Your task to perform on an android device: Go to Yahoo.com Image 0: 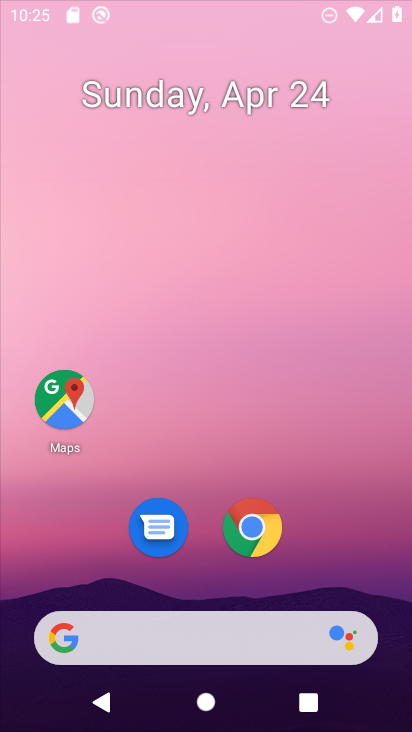
Step 0: click (294, 155)
Your task to perform on an android device: Go to Yahoo.com Image 1: 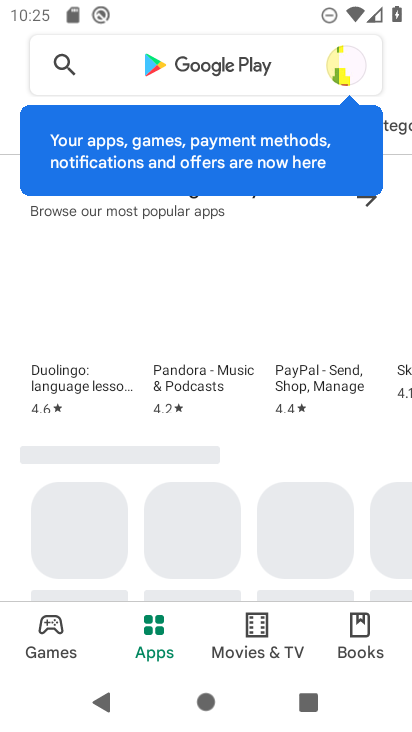
Step 1: press home button
Your task to perform on an android device: Go to Yahoo.com Image 2: 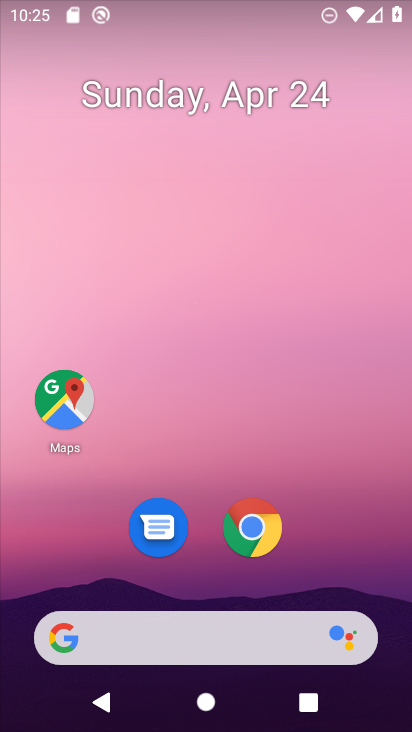
Step 2: drag from (382, 543) to (290, 111)
Your task to perform on an android device: Go to Yahoo.com Image 3: 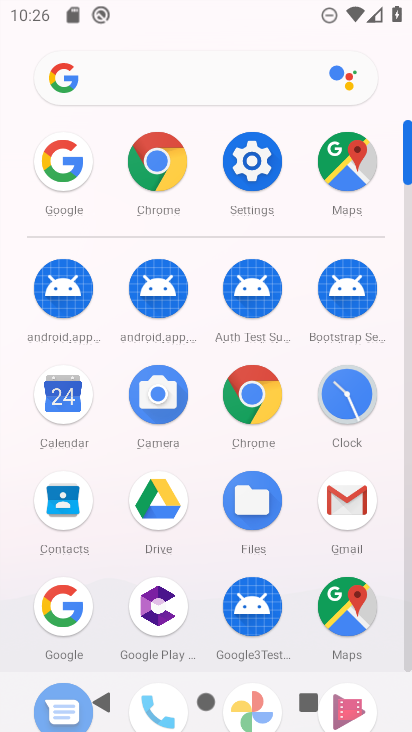
Step 3: click (158, 144)
Your task to perform on an android device: Go to Yahoo.com Image 4: 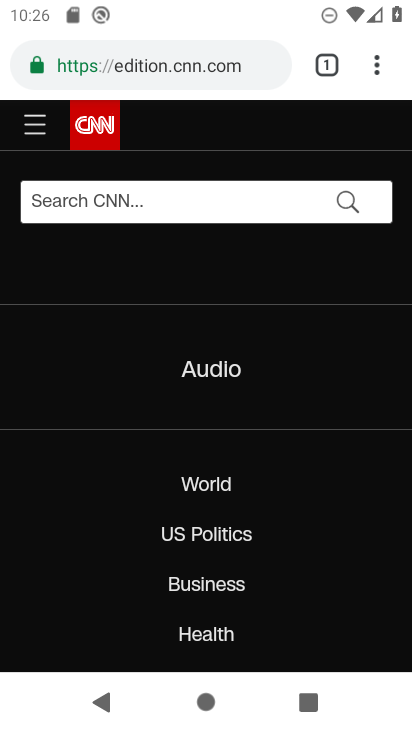
Step 4: press back button
Your task to perform on an android device: Go to Yahoo.com Image 5: 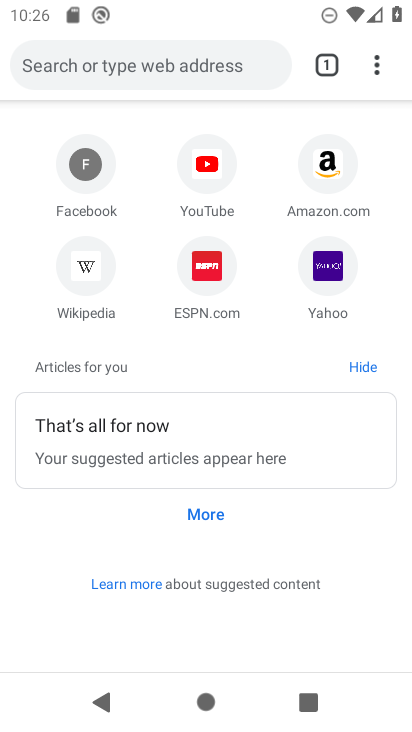
Step 5: click (325, 266)
Your task to perform on an android device: Go to Yahoo.com Image 6: 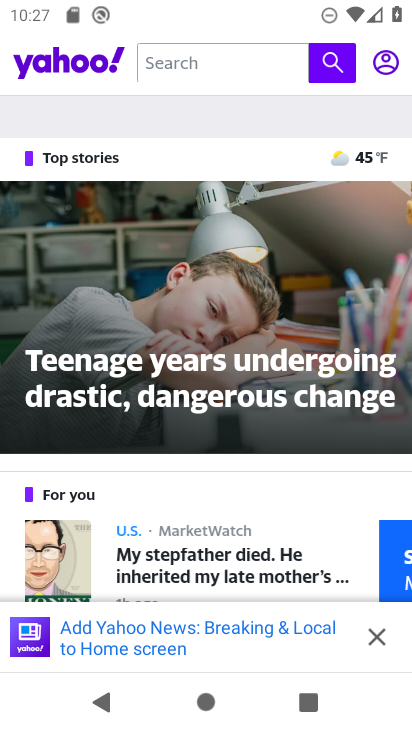
Step 6: task complete